Your task to perform on an android device: turn off location Image 0: 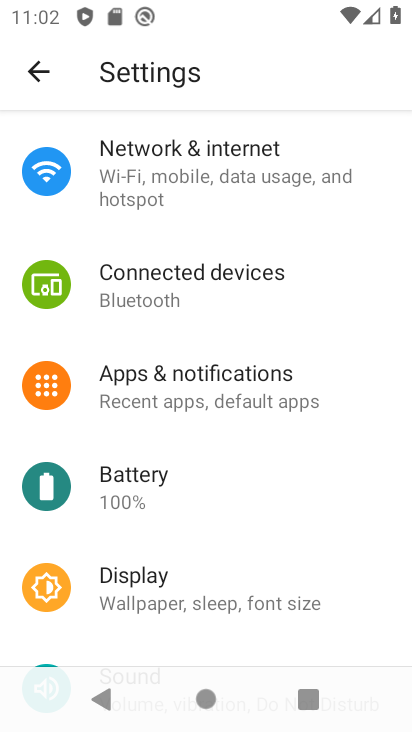
Step 0: drag from (196, 516) to (185, 320)
Your task to perform on an android device: turn off location Image 1: 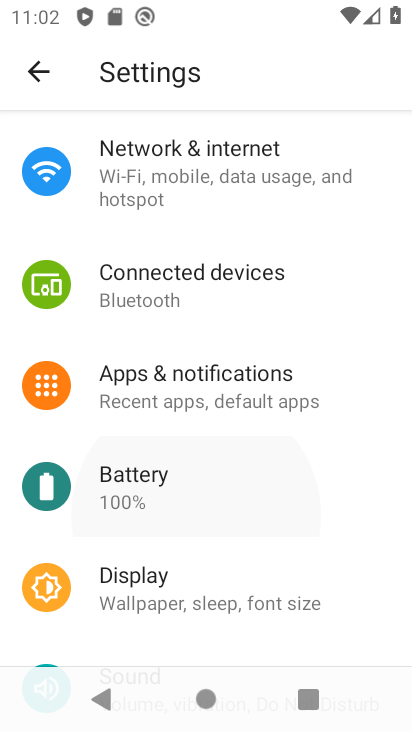
Step 1: drag from (254, 542) to (203, 188)
Your task to perform on an android device: turn off location Image 2: 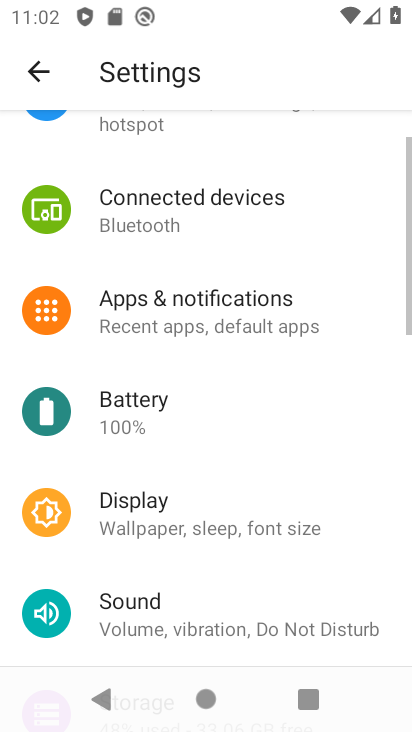
Step 2: drag from (220, 400) to (186, 137)
Your task to perform on an android device: turn off location Image 3: 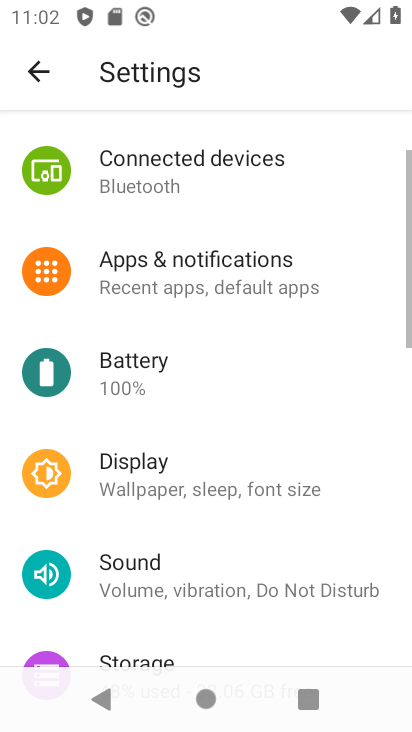
Step 3: drag from (196, 586) to (186, 223)
Your task to perform on an android device: turn off location Image 4: 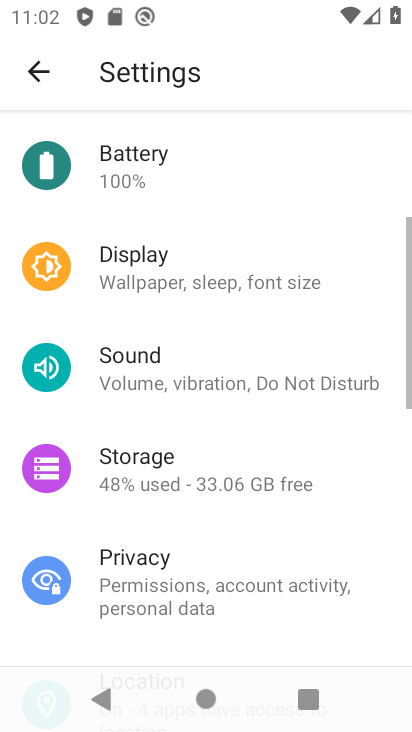
Step 4: drag from (246, 485) to (241, 99)
Your task to perform on an android device: turn off location Image 5: 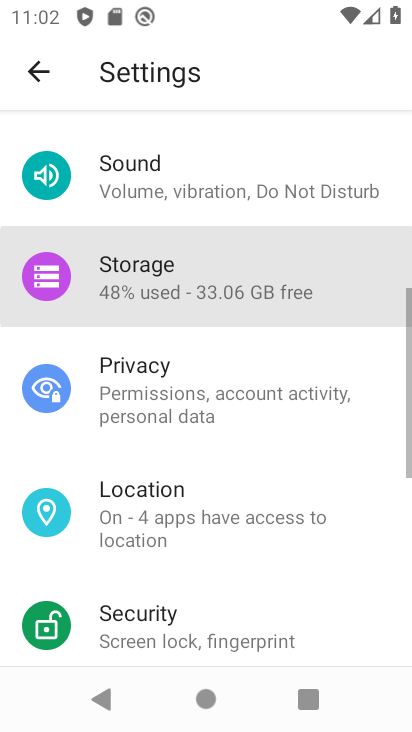
Step 5: click (150, 55)
Your task to perform on an android device: turn off location Image 6: 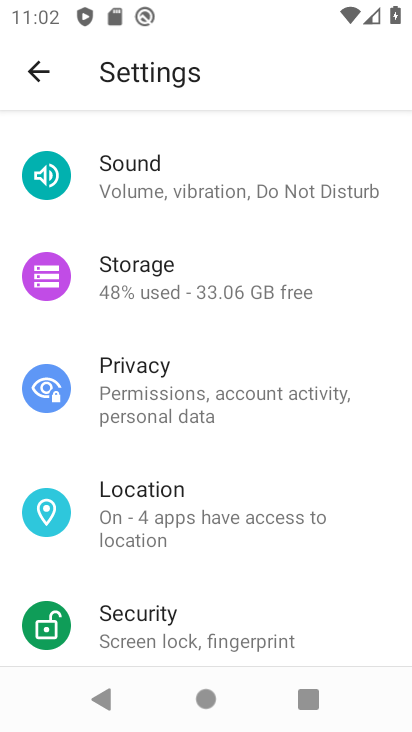
Step 6: click (168, 521)
Your task to perform on an android device: turn off location Image 7: 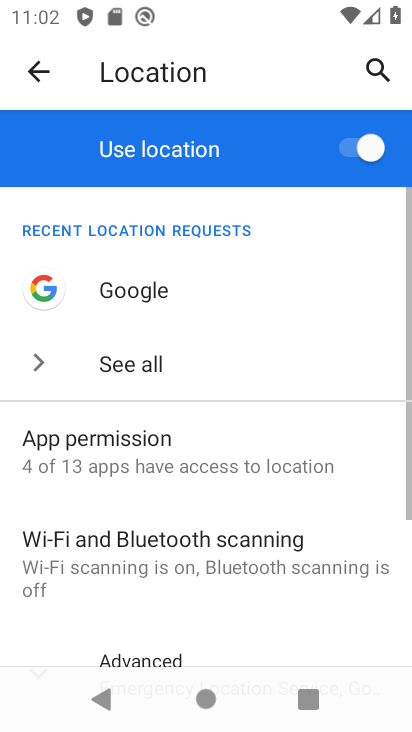
Step 7: click (366, 147)
Your task to perform on an android device: turn off location Image 8: 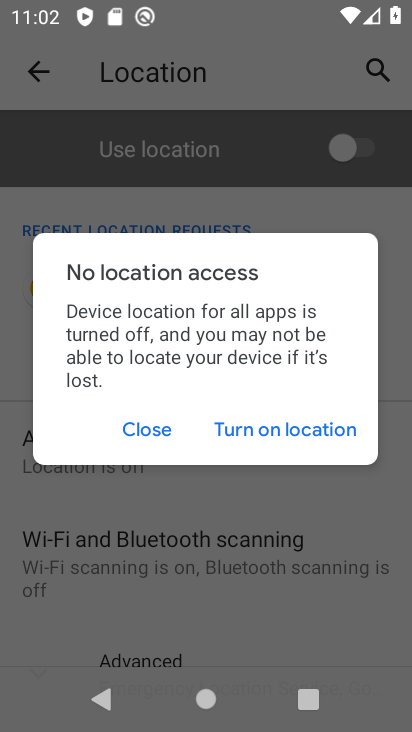
Step 8: task complete